Your task to perform on an android device: open app "Move to iOS" Image 0: 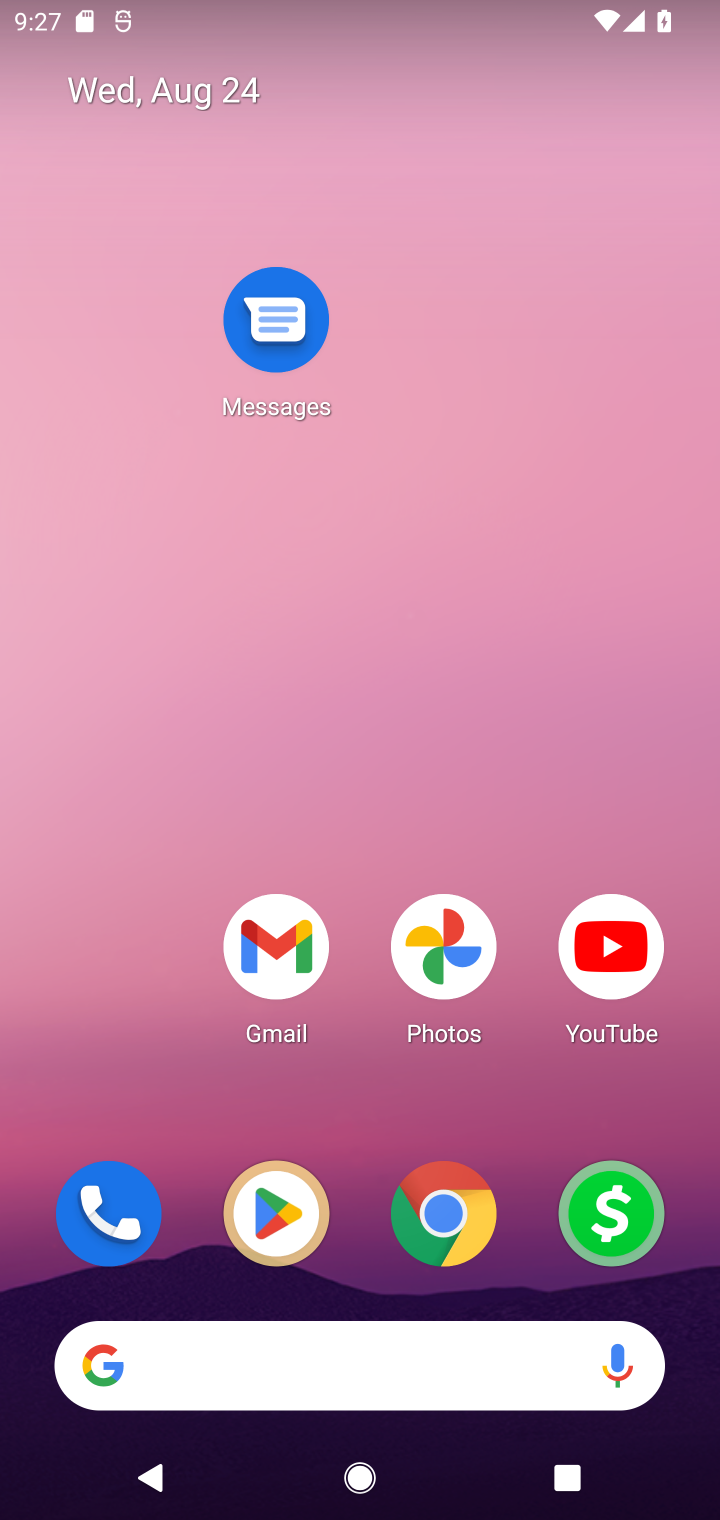
Step 0: click (287, 1223)
Your task to perform on an android device: open app "Move to iOS" Image 1: 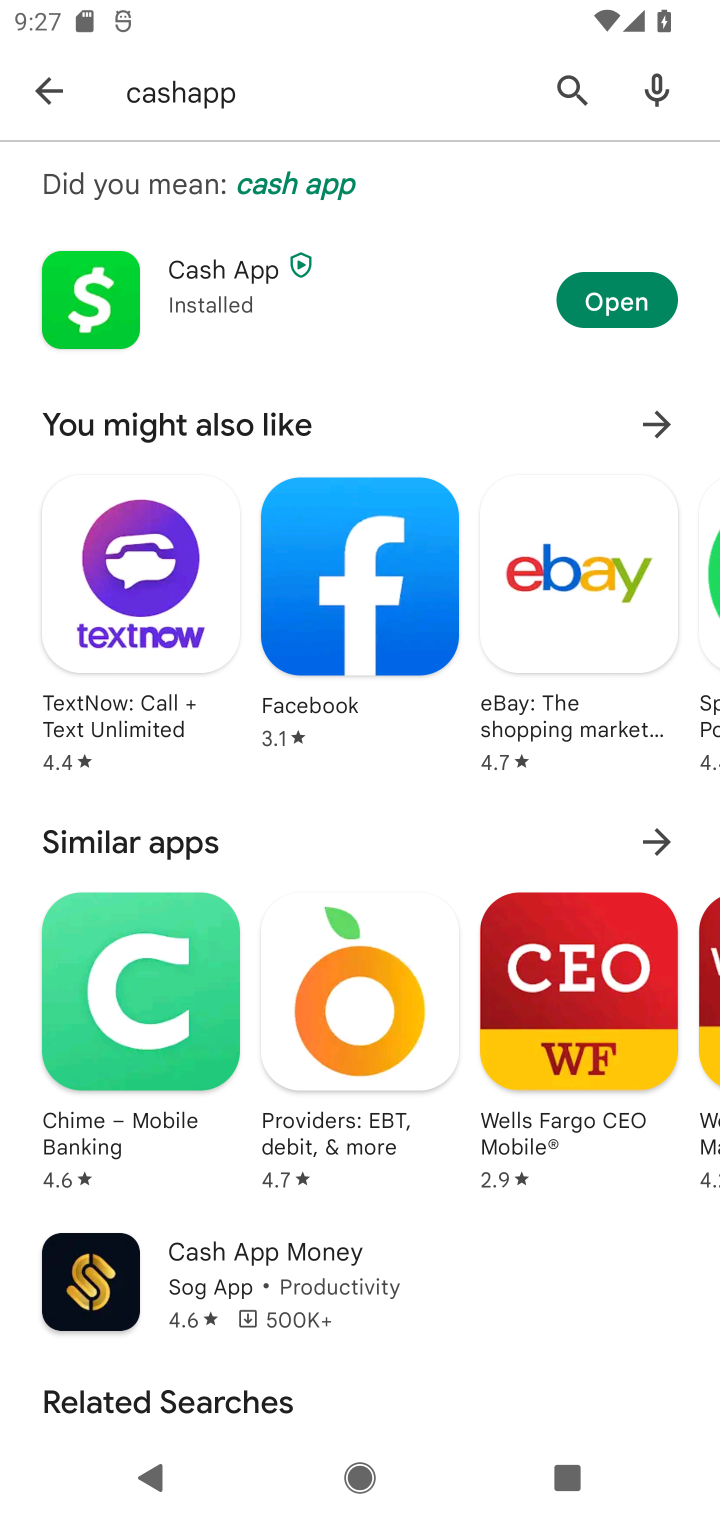
Step 1: click (268, 112)
Your task to perform on an android device: open app "Move to iOS" Image 2: 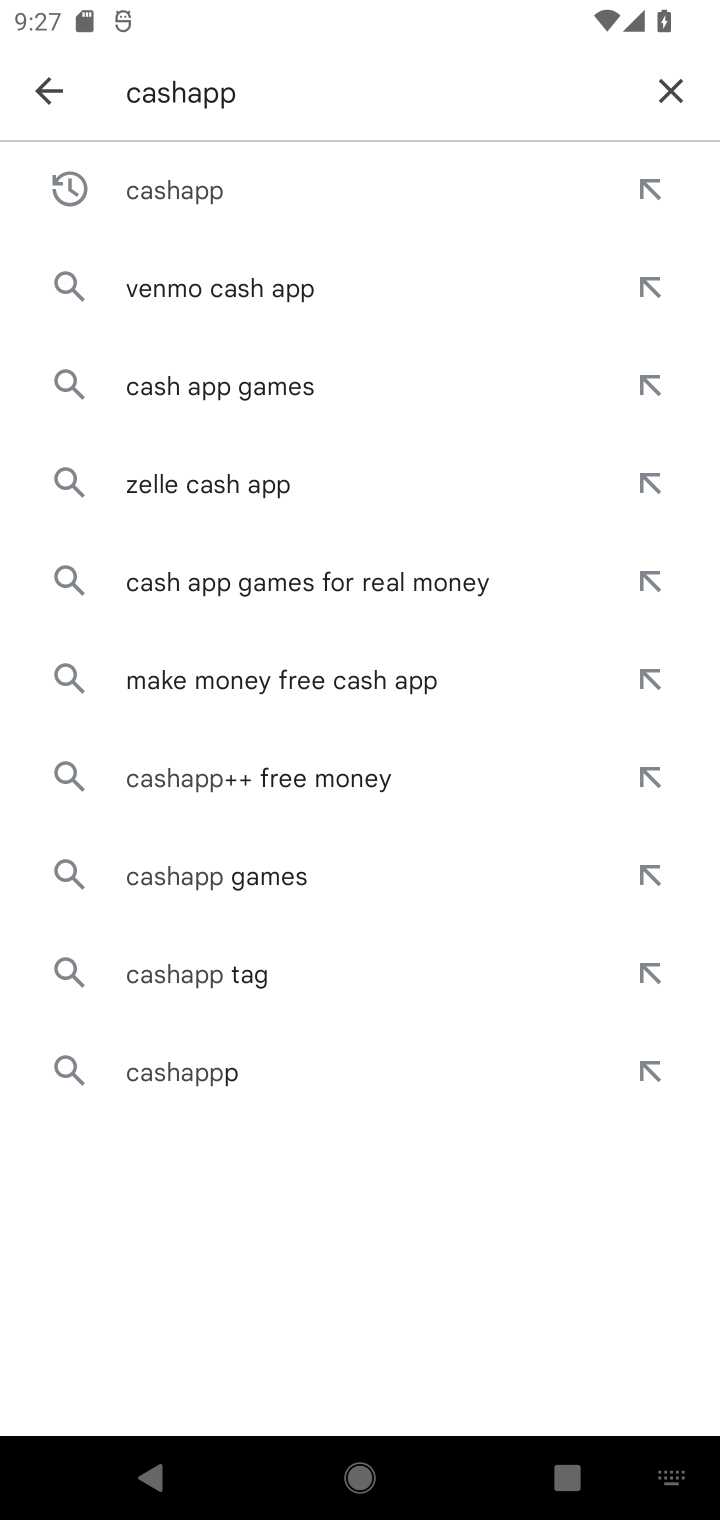
Step 2: click (667, 70)
Your task to perform on an android device: open app "Move to iOS" Image 3: 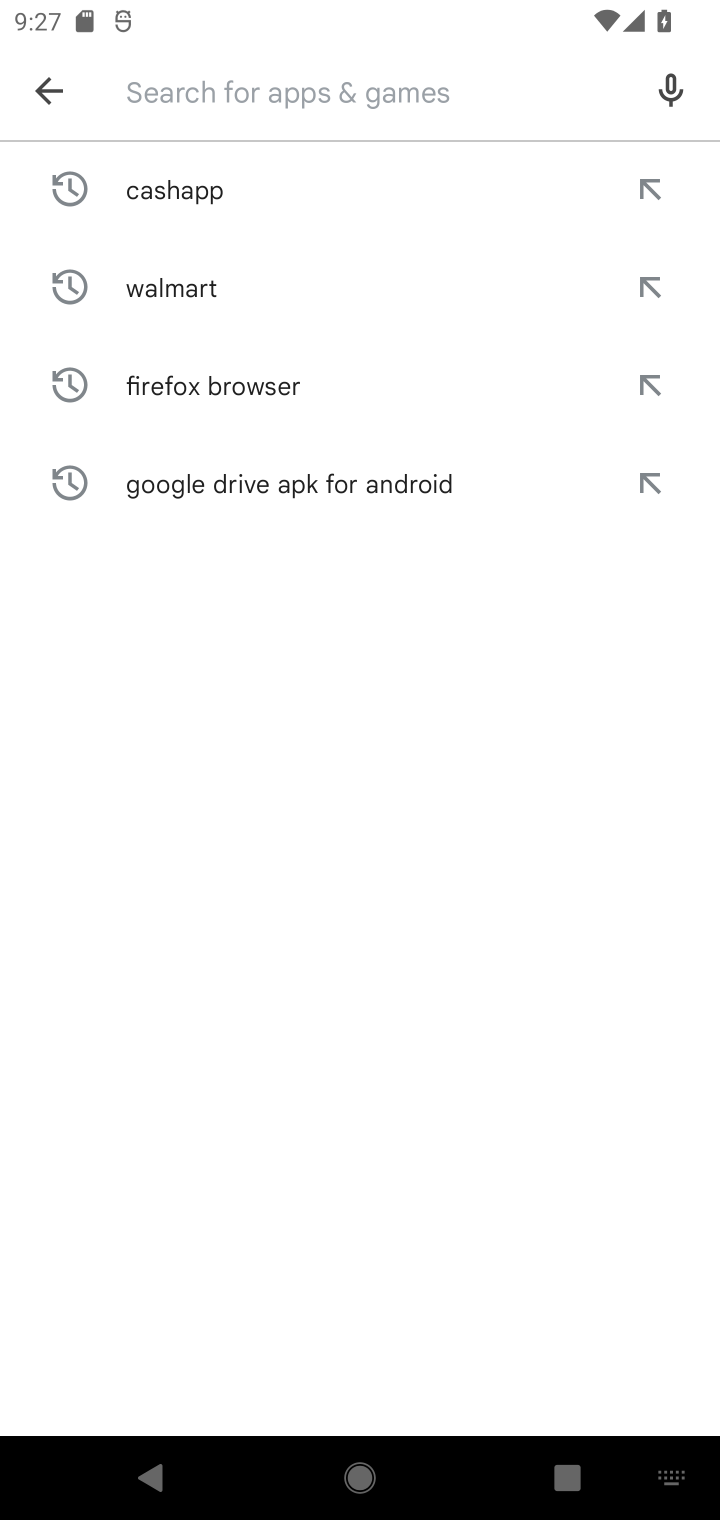
Step 3: type "MOve to IOS"
Your task to perform on an android device: open app "Move to iOS" Image 4: 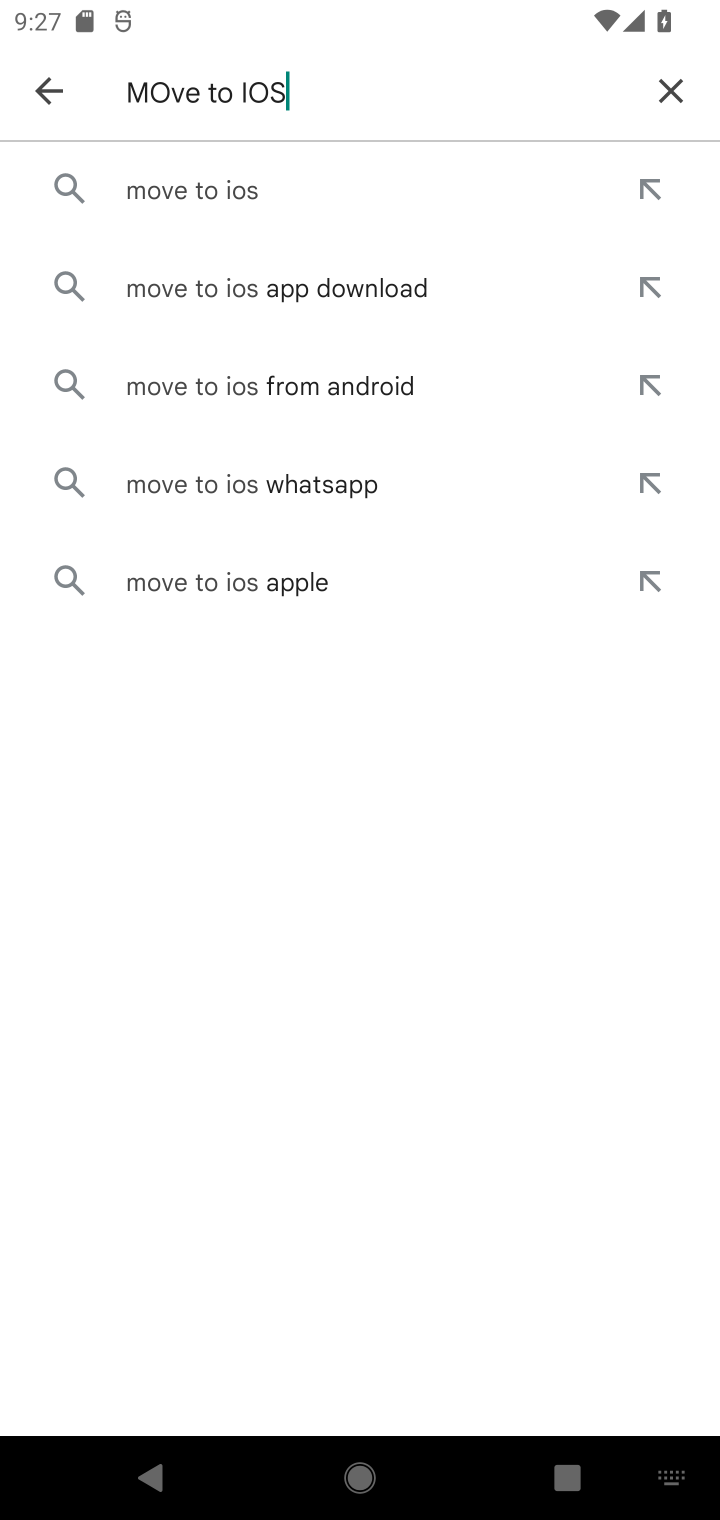
Step 4: click (221, 208)
Your task to perform on an android device: open app "Move to iOS" Image 5: 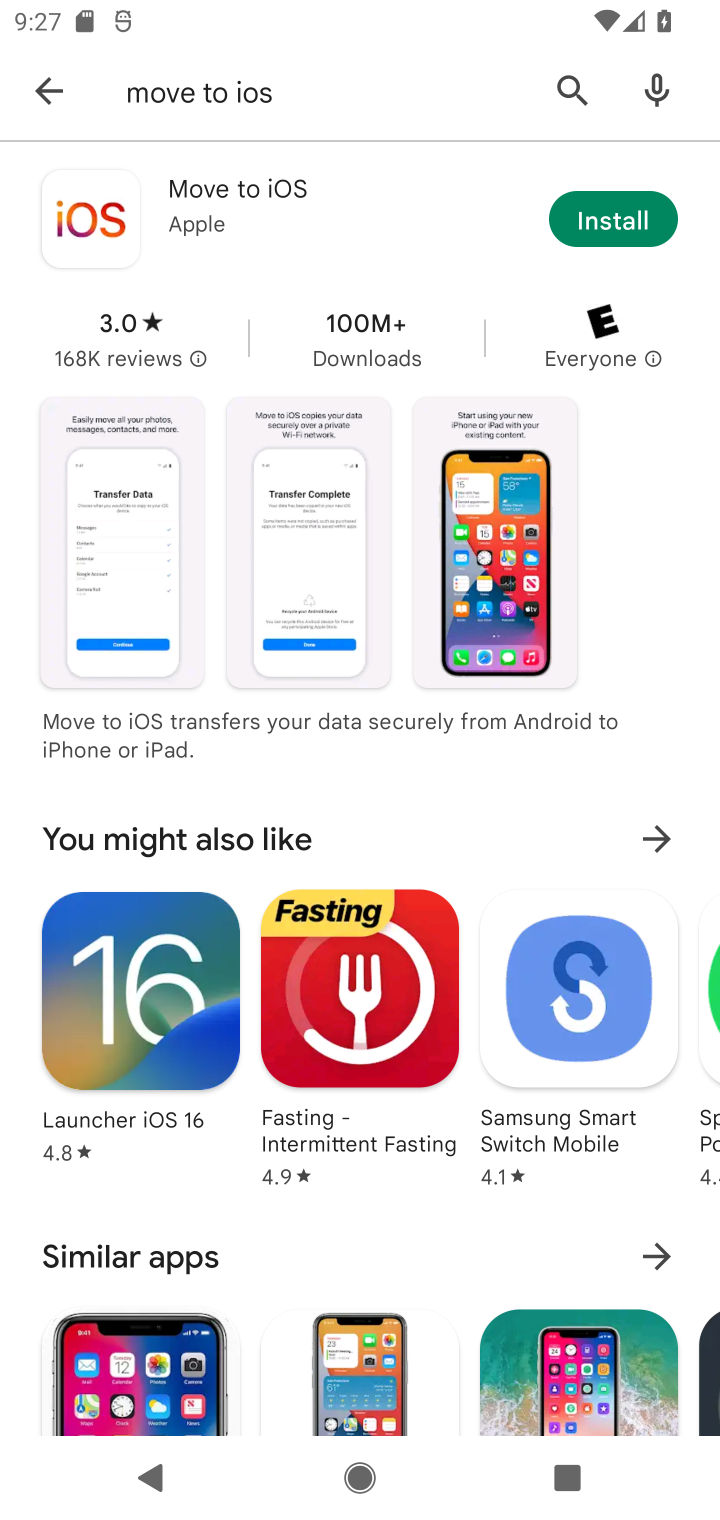
Step 5: task complete